Your task to perform on an android device: Play the last video I watched on Youtube Image 0: 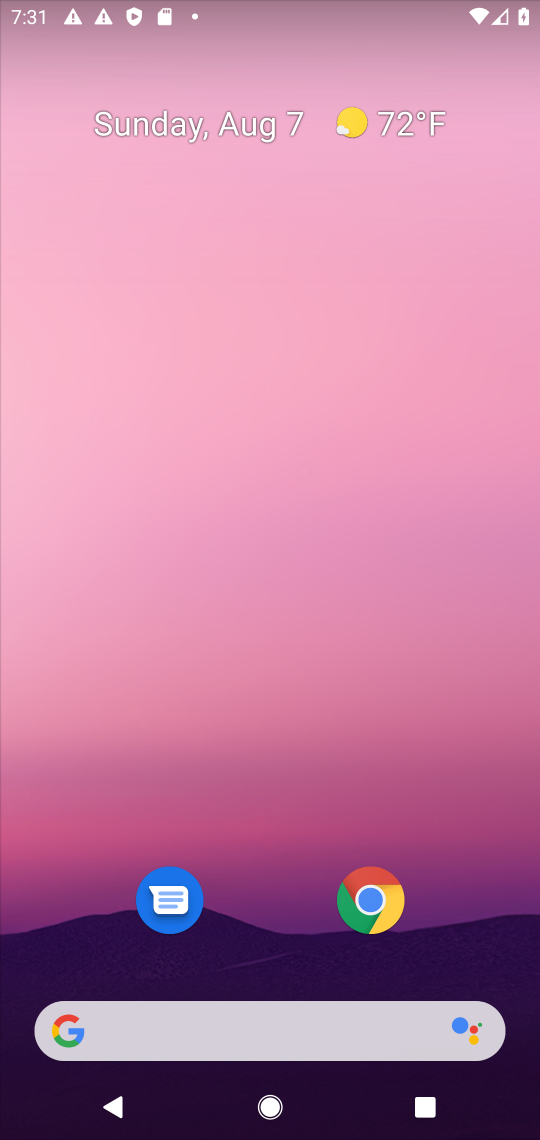
Step 0: press home button
Your task to perform on an android device: Play the last video I watched on Youtube Image 1: 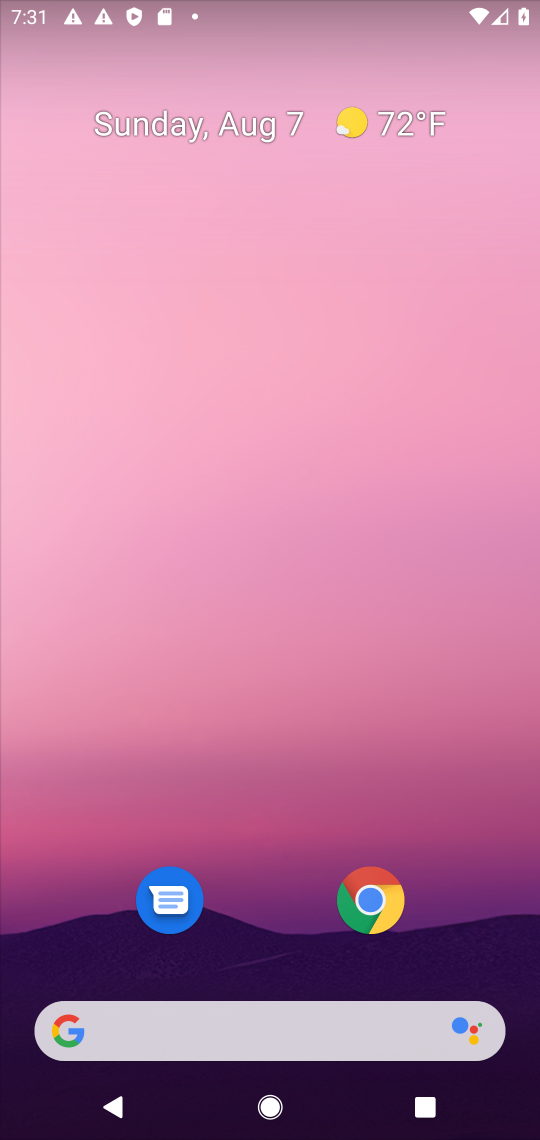
Step 1: drag from (261, 1041) to (359, 80)
Your task to perform on an android device: Play the last video I watched on Youtube Image 2: 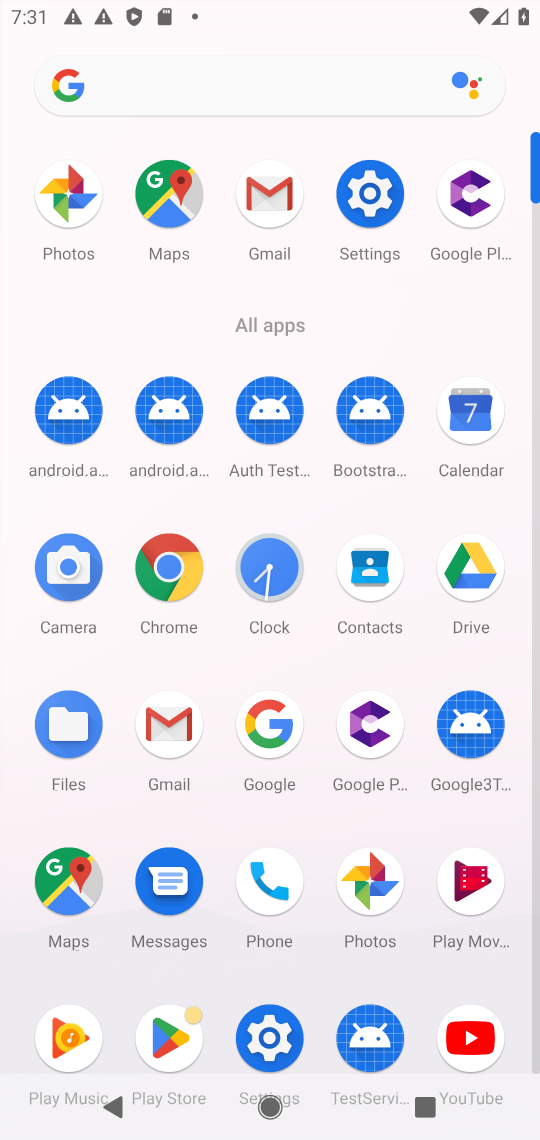
Step 2: click (469, 875)
Your task to perform on an android device: Play the last video I watched on Youtube Image 3: 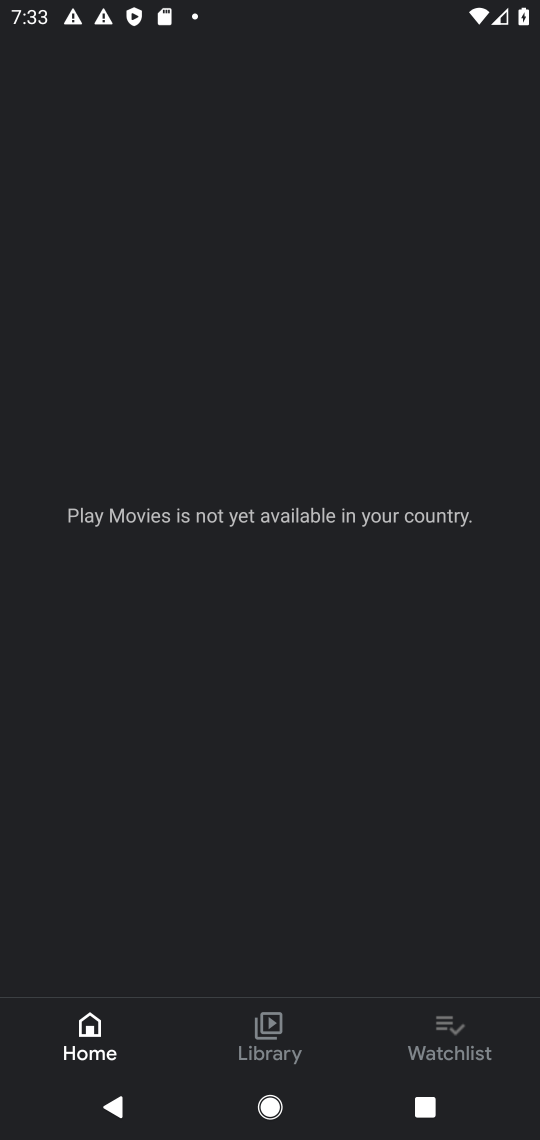
Step 3: click (464, 1043)
Your task to perform on an android device: Play the last video I watched on Youtube Image 4: 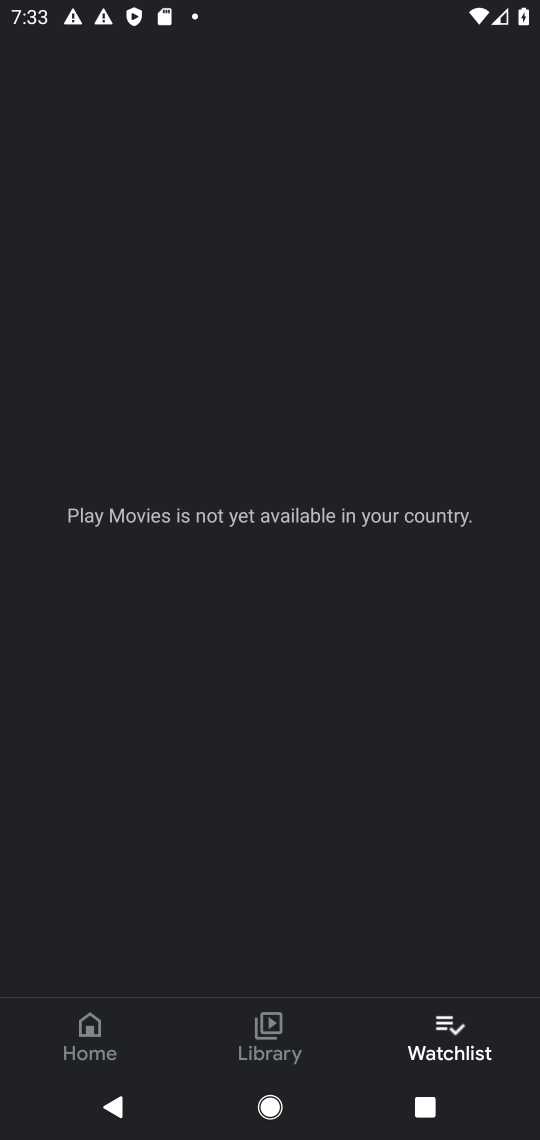
Step 4: task complete